Your task to perform on an android device: turn pop-ups on in chrome Image 0: 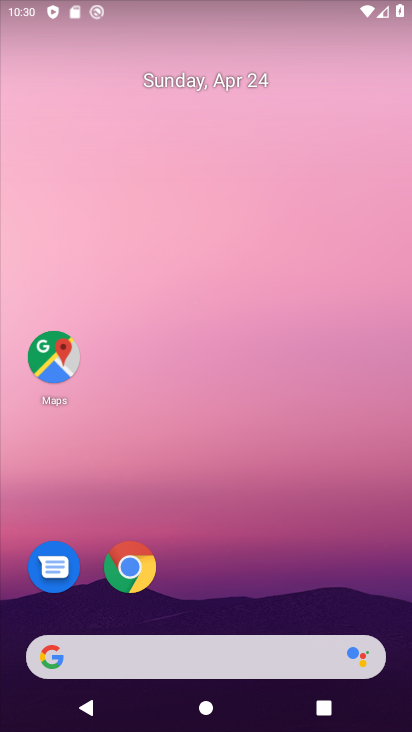
Step 0: drag from (258, 521) to (383, 28)
Your task to perform on an android device: turn pop-ups on in chrome Image 1: 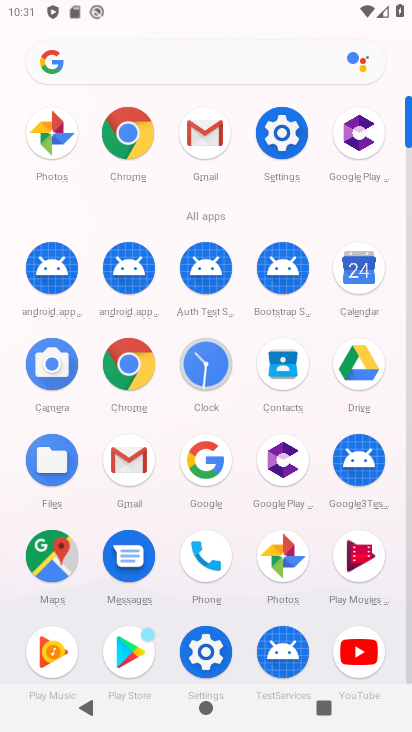
Step 1: click (148, 343)
Your task to perform on an android device: turn pop-ups on in chrome Image 2: 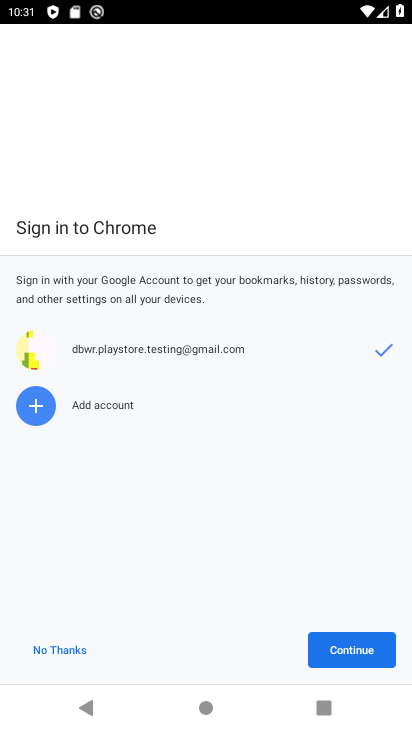
Step 2: click (337, 650)
Your task to perform on an android device: turn pop-ups on in chrome Image 3: 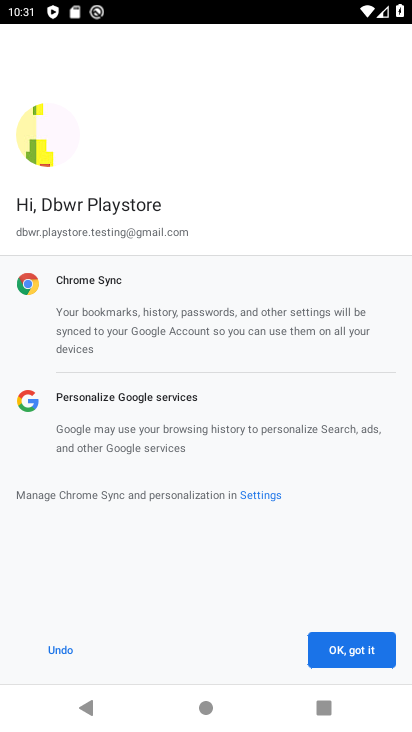
Step 3: click (339, 650)
Your task to perform on an android device: turn pop-ups on in chrome Image 4: 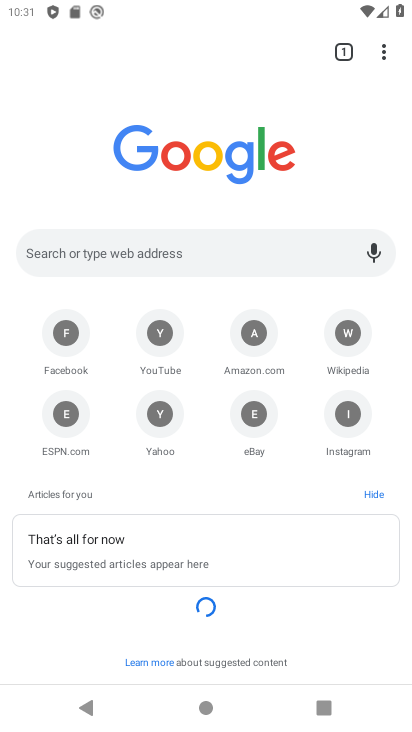
Step 4: click (385, 53)
Your task to perform on an android device: turn pop-ups on in chrome Image 5: 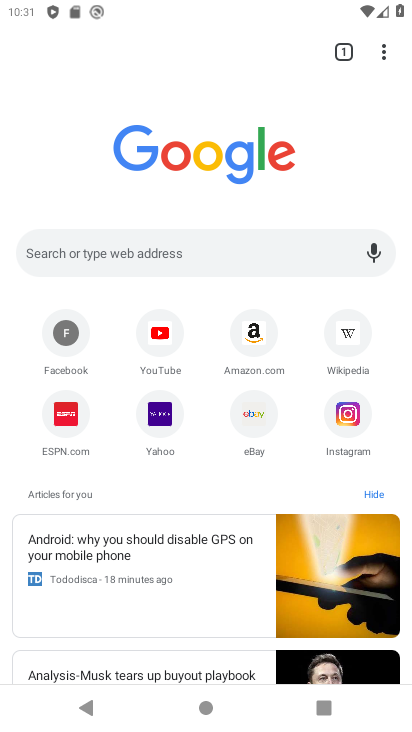
Step 5: click (384, 49)
Your task to perform on an android device: turn pop-ups on in chrome Image 6: 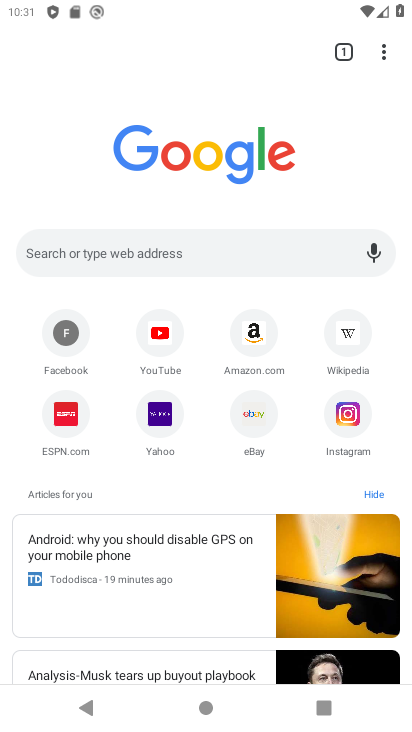
Step 6: drag from (379, 52) to (207, 428)
Your task to perform on an android device: turn pop-ups on in chrome Image 7: 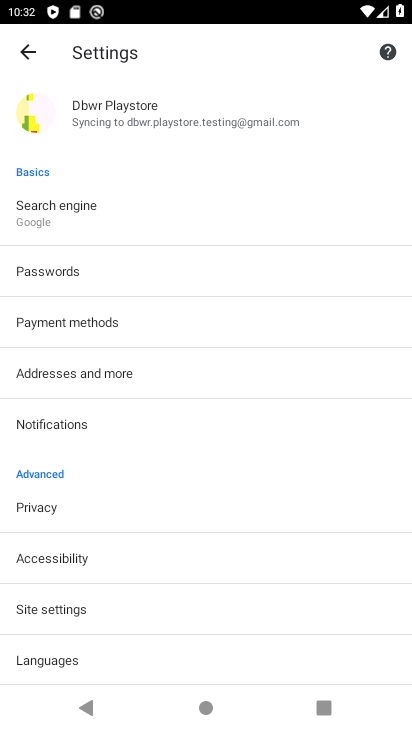
Step 7: click (101, 610)
Your task to perform on an android device: turn pop-ups on in chrome Image 8: 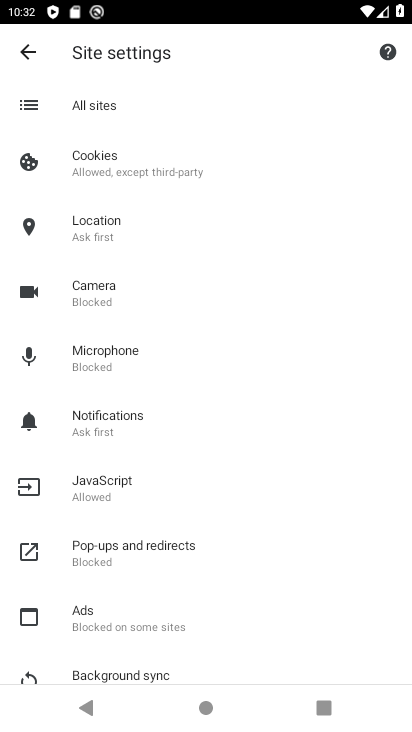
Step 8: click (188, 549)
Your task to perform on an android device: turn pop-ups on in chrome Image 9: 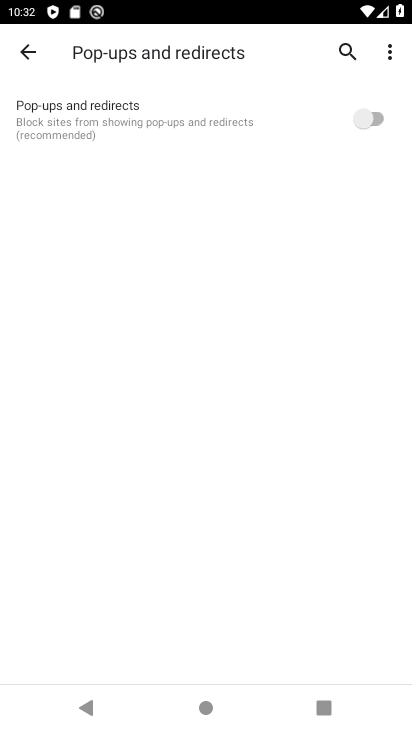
Step 9: click (373, 118)
Your task to perform on an android device: turn pop-ups on in chrome Image 10: 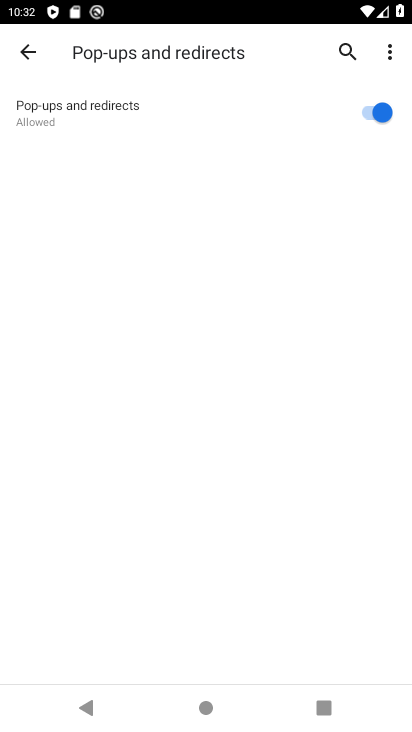
Step 10: task complete